Your task to perform on an android device: Open the Play Movies app and select the watchlist tab. Image 0: 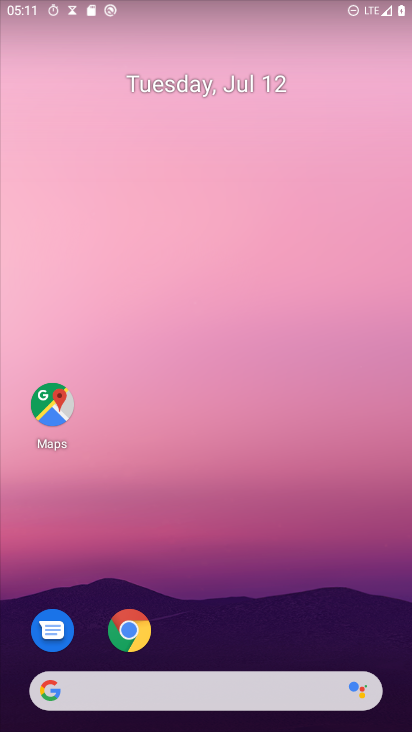
Step 0: drag from (312, 692) to (330, 50)
Your task to perform on an android device: Open the Play Movies app and select the watchlist tab. Image 1: 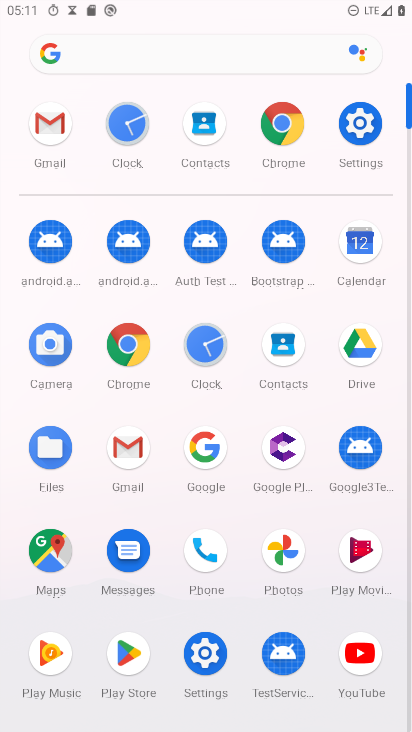
Step 1: click (350, 565)
Your task to perform on an android device: Open the Play Movies app and select the watchlist tab. Image 2: 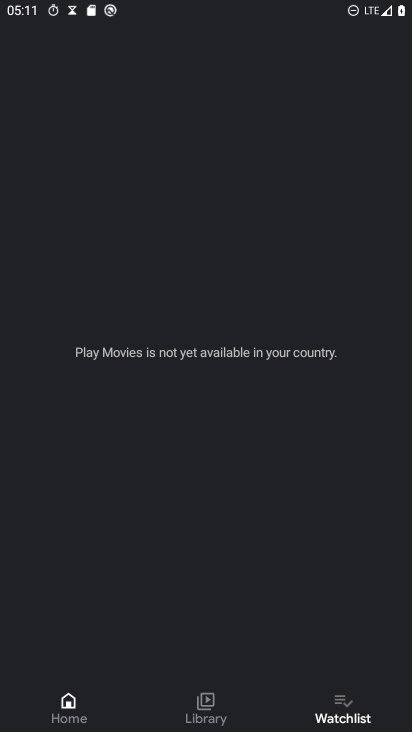
Step 2: click (346, 708)
Your task to perform on an android device: Open the Play Movies app and select the watchlist tab. Image 3: 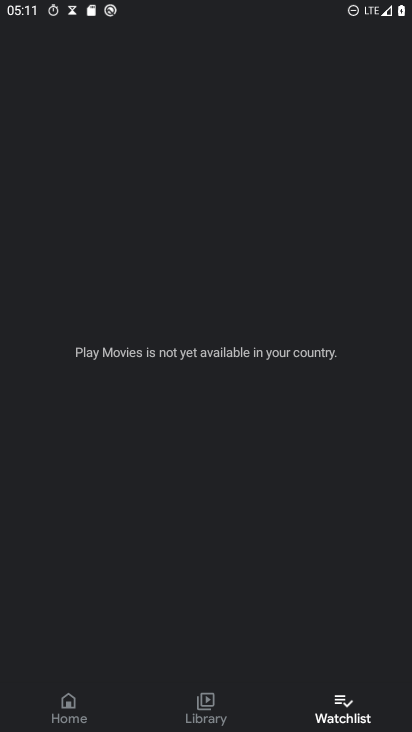
Step 3: task complete